Your task to perform on an android device: change the upload size in google photos Image 0: 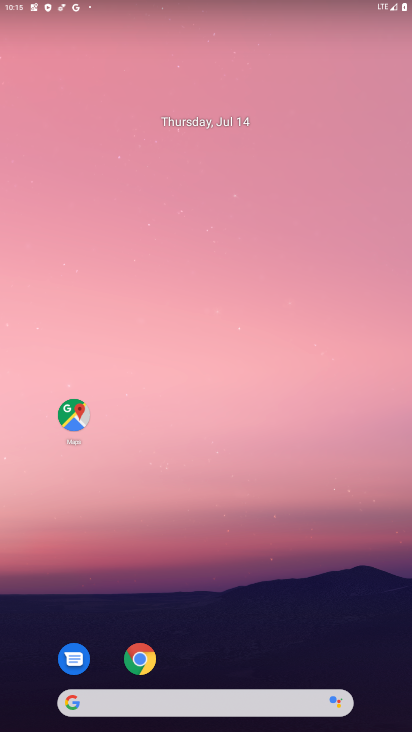
Step 0: drag from (295, 632) to (291, 167)
Your task to perform on an android device: change the upload size in google photos Image 1: 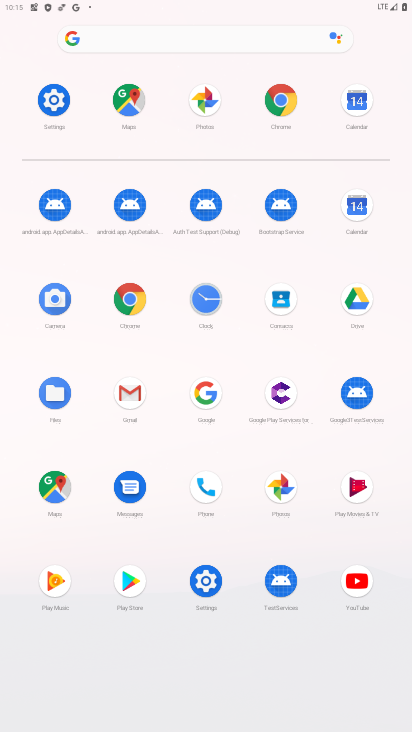
Step 1: click (201, 96)
Your task to perform on an android device: change the upload size in google photos Image 2: 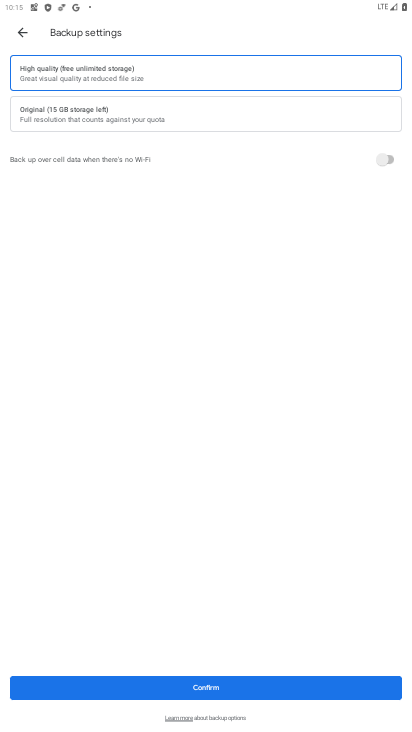
Step 2: click (291, 693)
Your task to perform on an android device: change the upload size in google photos Image 3: 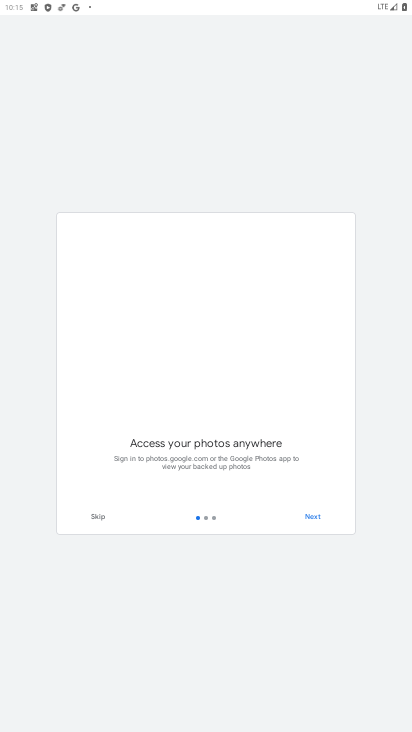
Step 3: click (311, 516)
Your task to perform on an android device: change the upload size in google photos Image 4: 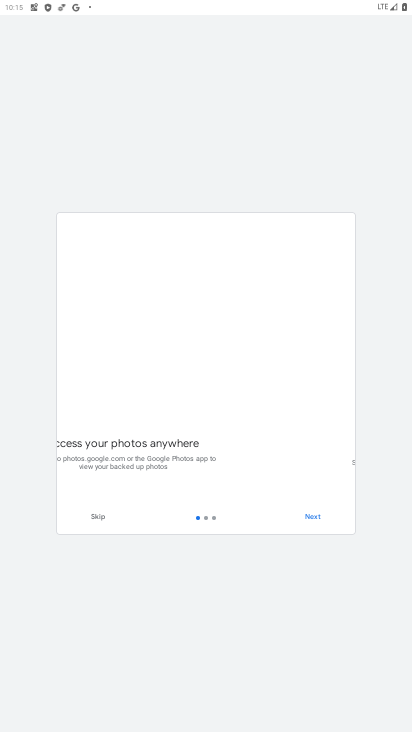
Step 4: click (311, 516)
Your task to perform on an android device: change the upload size in google photos Image 5: 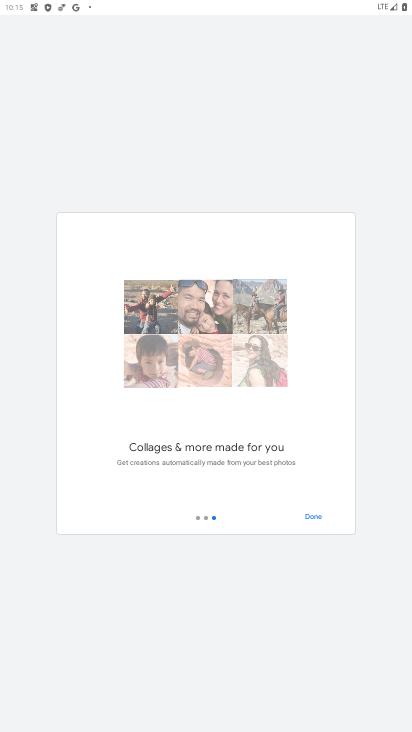
Step 5: click (311, 516)
Your task to perform on an android device: change the upload size in google photos Image 6: 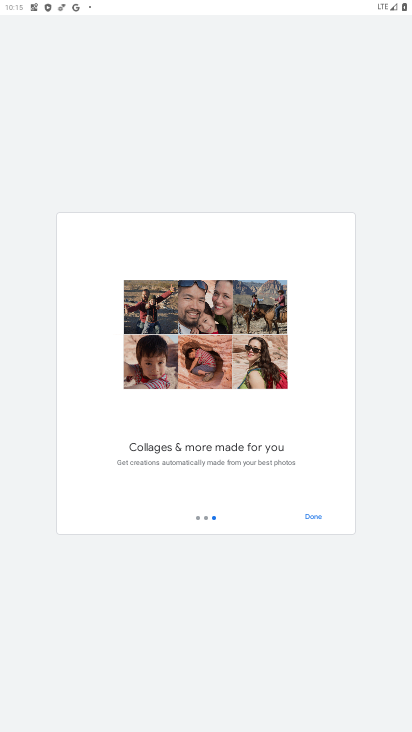
Step 6: click (311, 516)
Your task to perform on an android device: change the upload size in google photos Image 7: 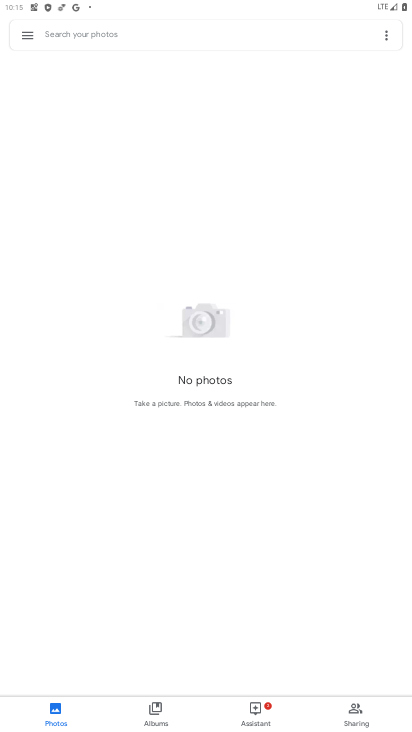
Step 7: click (311, 516)
Your task to perform on an android device: change the upload size in google photos Image 8: 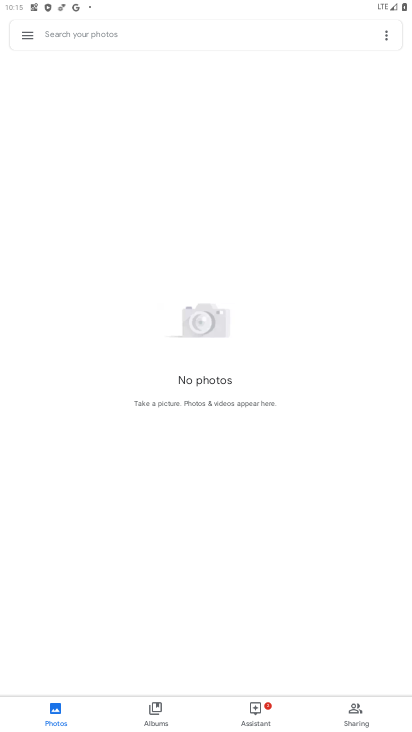
Step 8: click (27, 36)
Your task to perform on an android device: change the upload size in google photos Image 9: 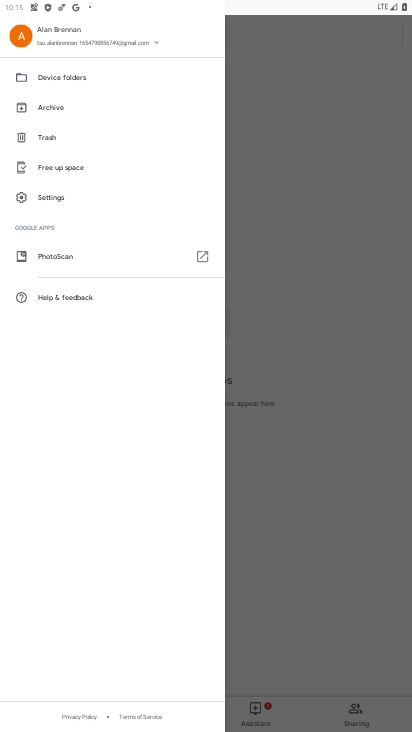
Step 9: click (52, 199)
Your task to perform on an android device: change the upload size in google photos Image 10: 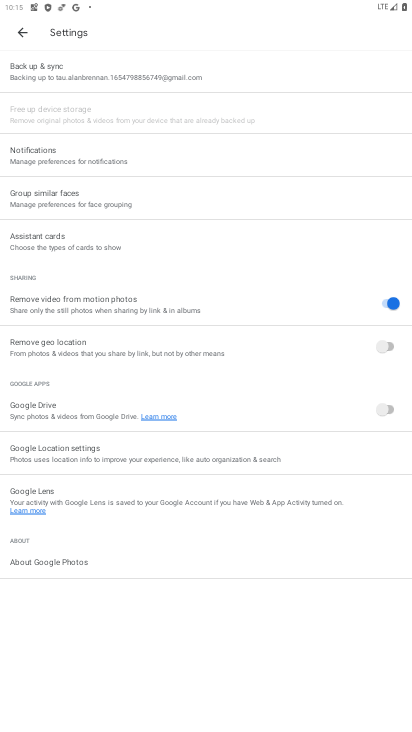
Step 10: click (194, 75)
Your task to perform on an android device: change the upload size in google photos Image 11: 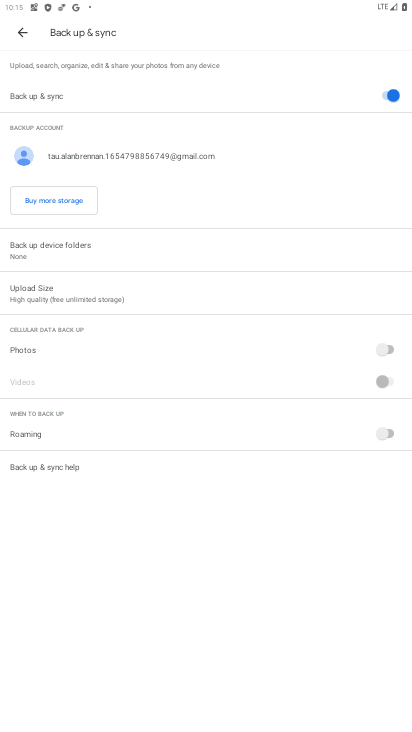
Step 11: click (108, 297)
Your task to perform on an android device: change the upload size in google photos Image 12: 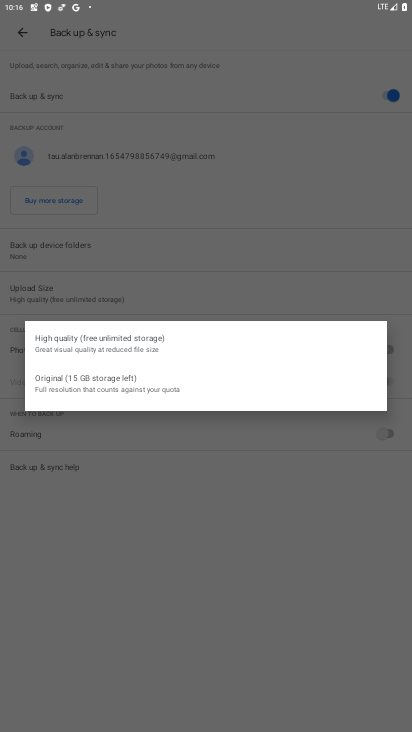
Step 12: click (79, 394)
Your task to perform on an android device: change the upload size in google photos Image 13: 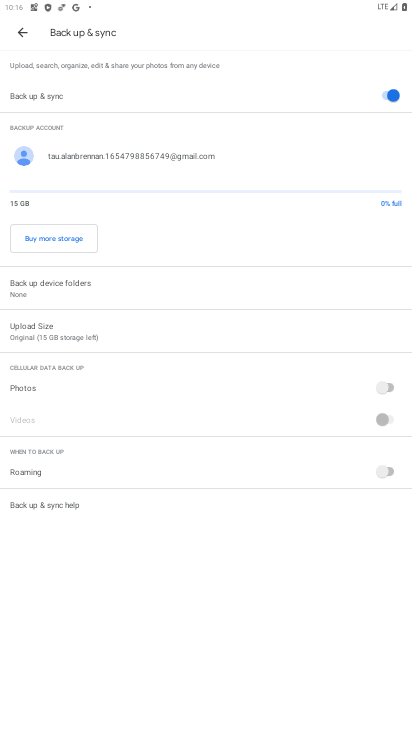
Step 13: task complete